Your task to perform on an android device: turn on location history Image 0: 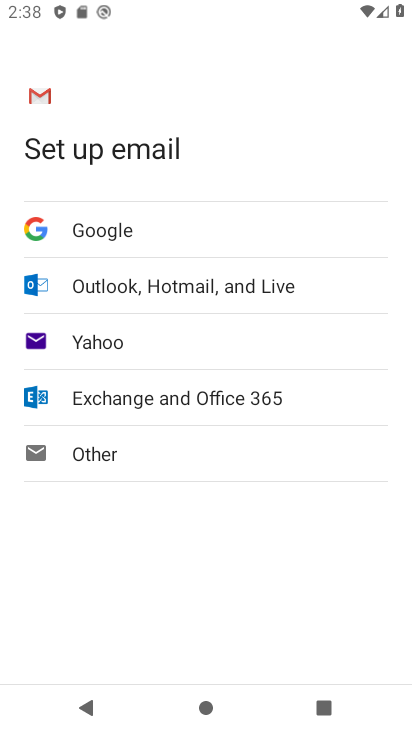
Step 0: press home button
Your task to perform on an android device: turn on location history Image 1: 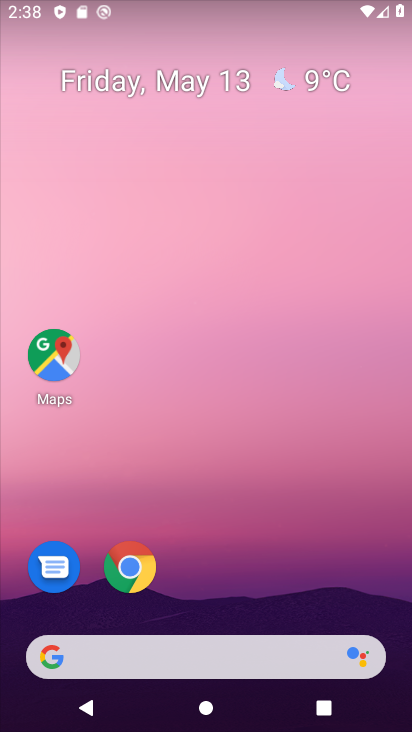
Step 1: click (51, 361)
Your task to perform on an android device: turn on location history Image 2: 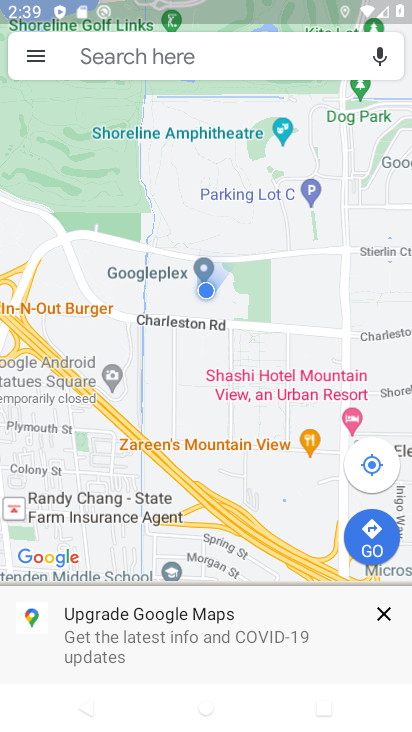
Step 2: click (32, 57)
Your task to perform on an android device: turn on location history Image 3: 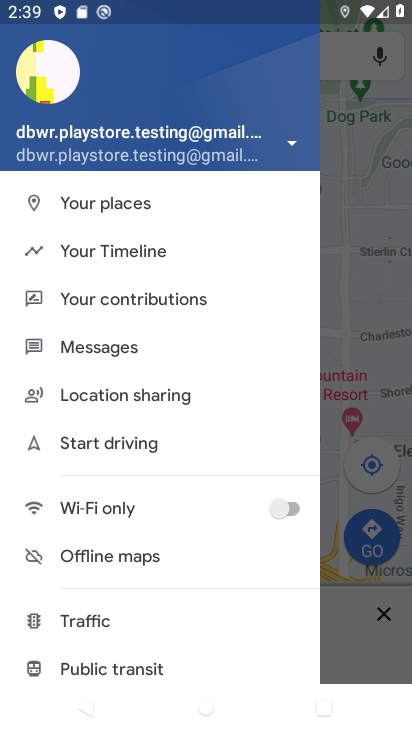
Step 3: click (119, 253)
Your task to perform on an android device: turn on location history Image 4: 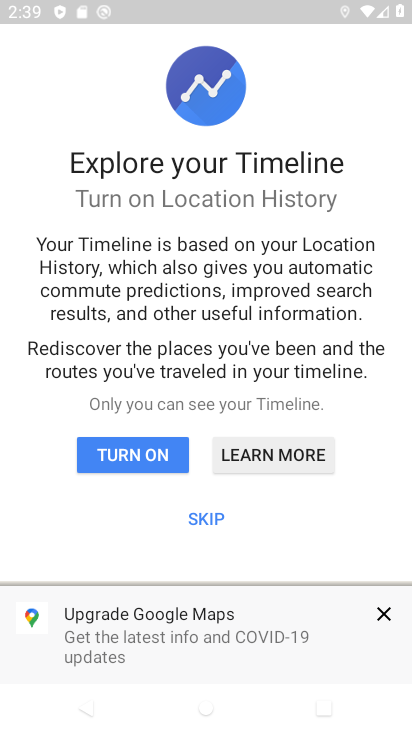
Step 4: click (195, 521)
Your task to perform on an android device: turn on location history Image 5: 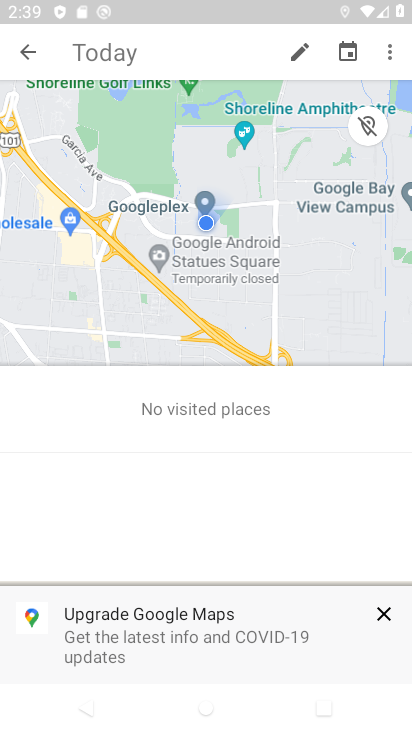
Step 5: click (383, 53)
Your task to perform on an android device: turn on location history Image 6: 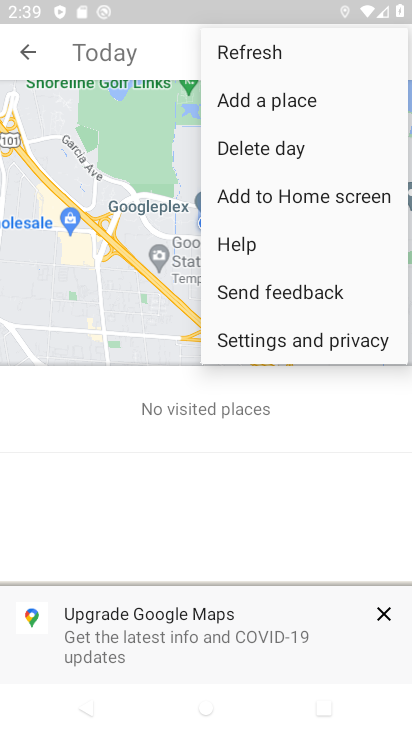
Step 6: click (261, 352)
Your task to perform on an android device: turn on location history Image 7: 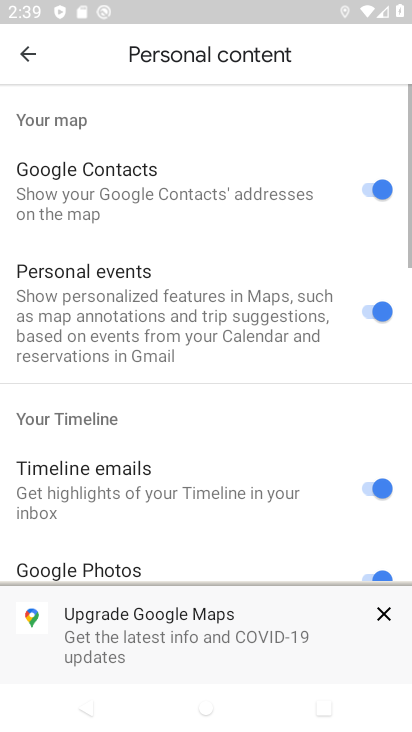
Step 7: drag from (148, 507) to (156, 180)
Your task to perform on an android device: turn on location history Image 8: 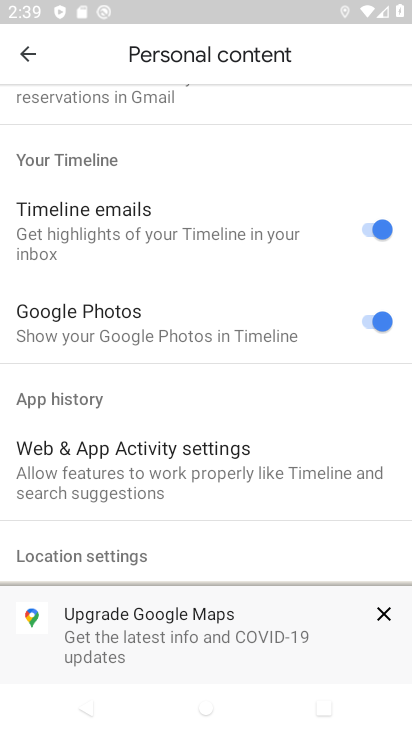
Step 8: drag from (127, 474) to (136, 174)
Your task to perform on an android device: turn on location history Image 9: 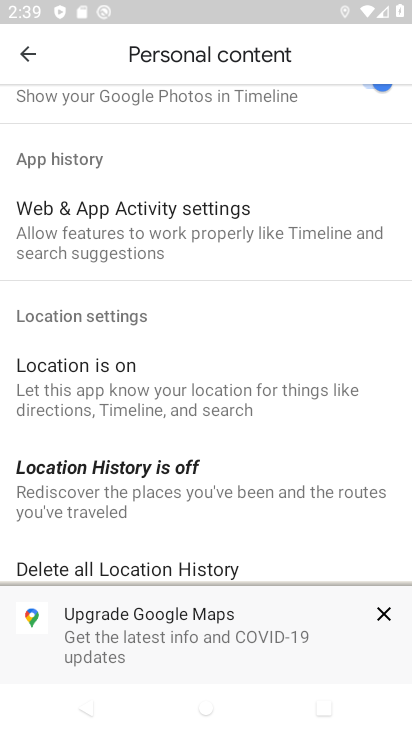
Step 9: click (99, 491)
Your task to perform on an android device: turn on location history Image 10: 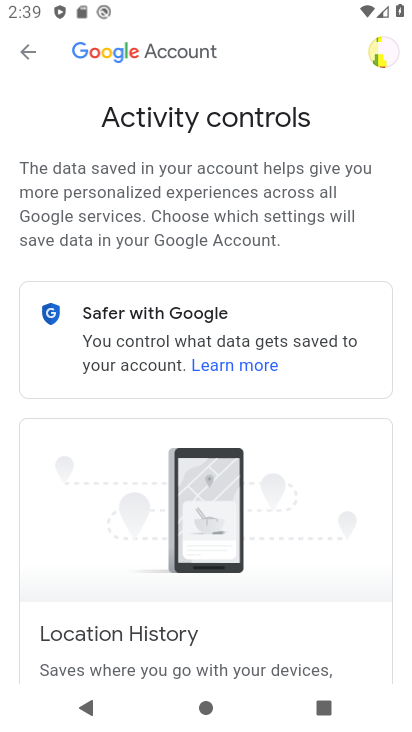
Step 10: drag from (257, 549) to (242, 205)
Your task to perform on an android device: turn on location history Image 11: 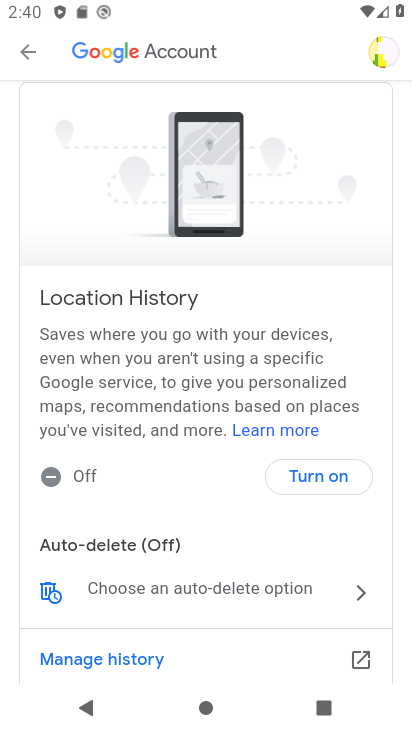
Step 11: click (330, 480)
Your task to perform on an android device: turn on location history Image 12: 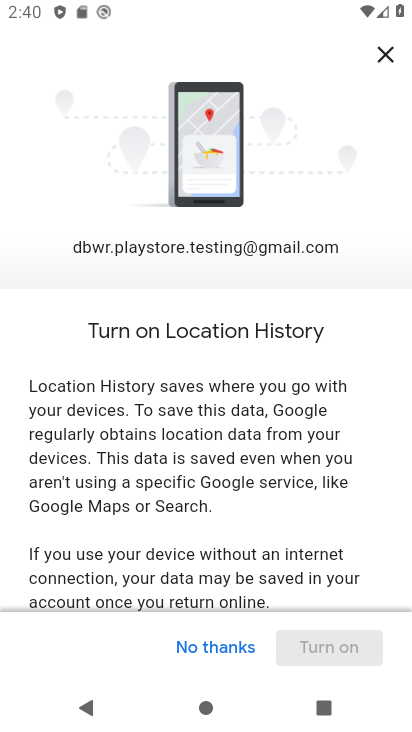
Step 12: drag from (188, 558) to (208, 111)
Your task to perform on an android device: turn on location history Image 13: 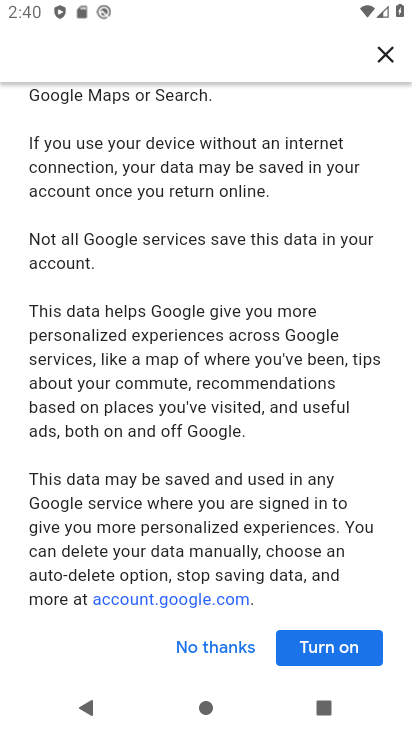
Step 13: drag from (150, 503) to (169, 165)
Your task to perform on an android device: turn on location history Image 14: 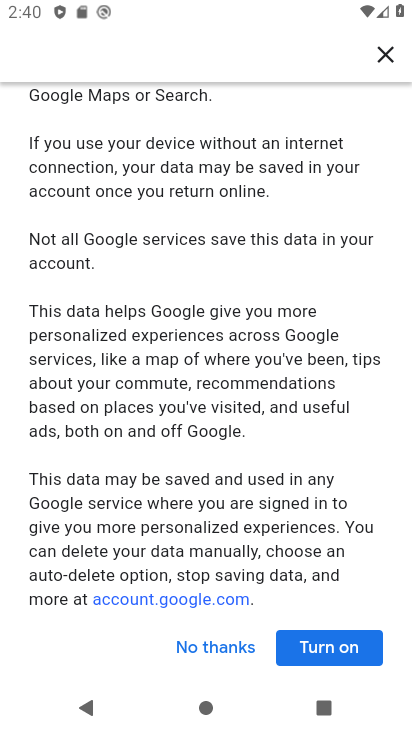
Step 14: click (320, 649)
Your task to perform on an android device: turn on location history Image 15: 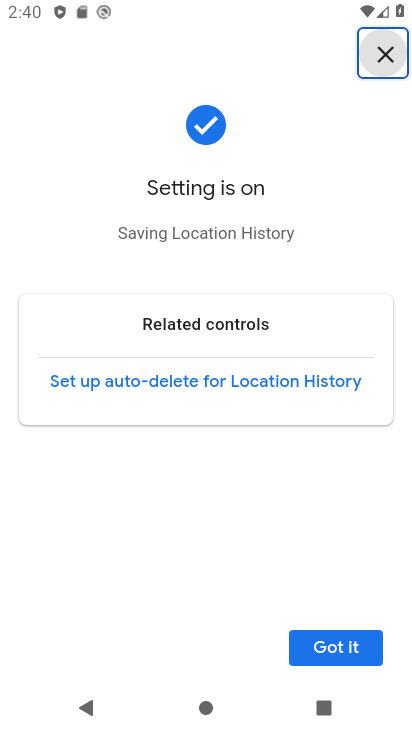
Step 15: click (317, 651)
Your task to perform on an android device: turn on location history Image 16: 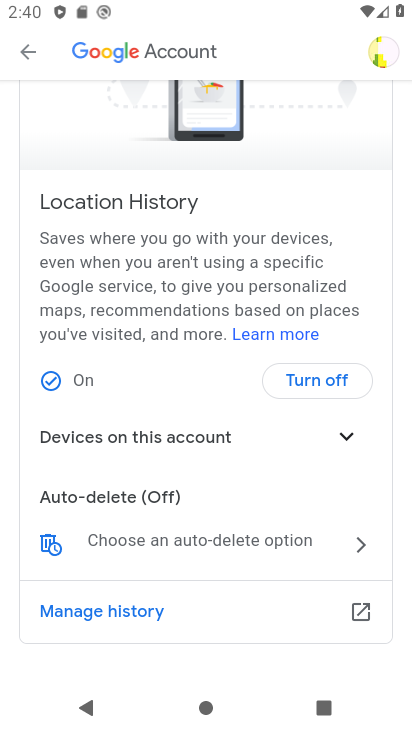
Step 16: task complete